Your task to perform on an android device: Open the calendar and show me this week's events? Image 0: 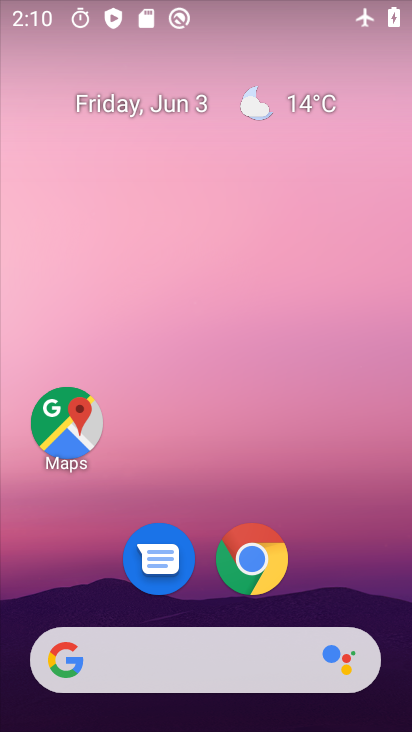
Step 0: drag from (236, 633) to (190, 19)
Your task to perform on an android device: Open the calendar and show me this week's events? Image 1: 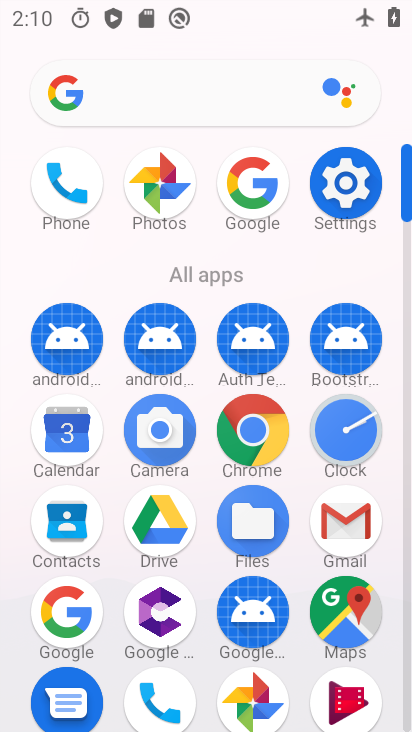
Step 1: click (57, 419)
Your task to perform on an android device: Open the calendar and show me this week's events? Image 2: 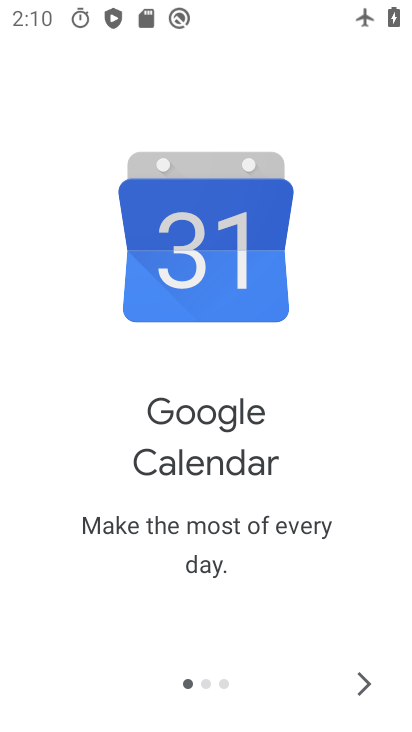
Step 2: click (351, 685)
Your task to perform on an android device: Open the calendar and show me this week's events? Image 3: 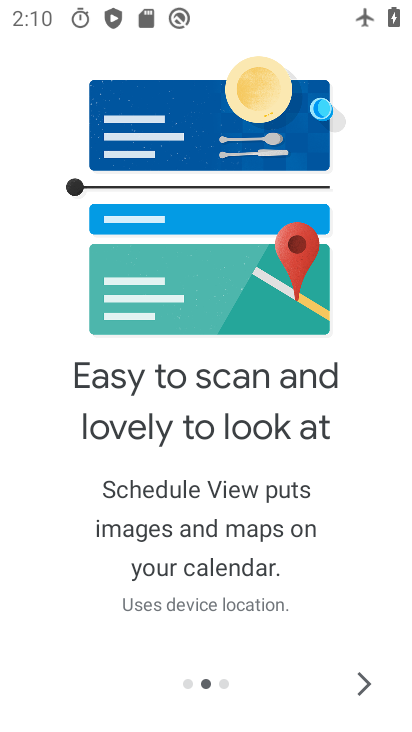
Step 3: click (365, 690)
Your task to perform on an android device: Open the calendar and show me this week's events? Image 4: 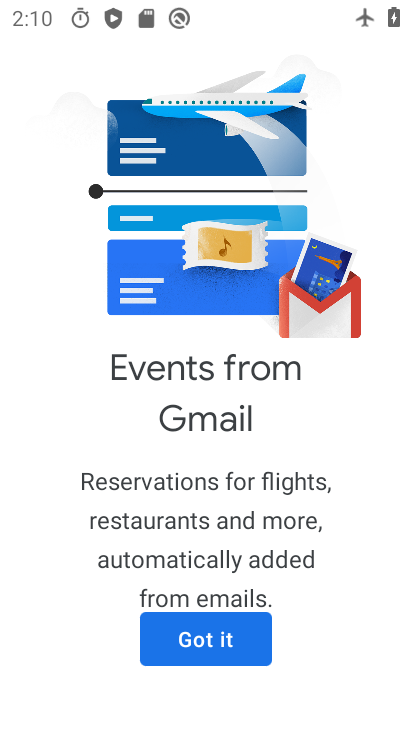
Step 4: click (236, 649)
Your task to perform on an android device: Open the calendar and show me this week's events? Image 5: 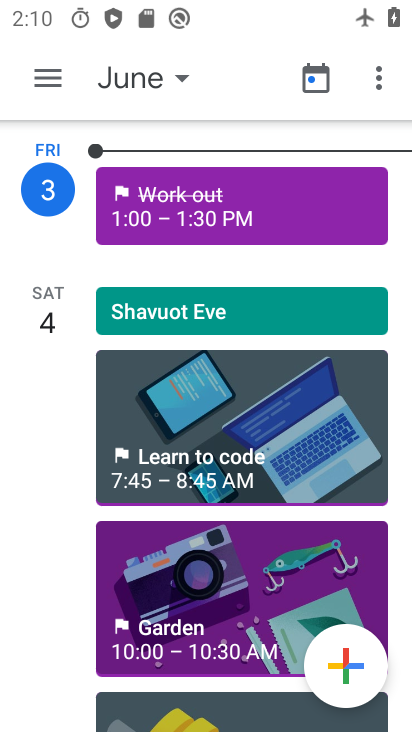
Step 5: click (34, 70)
Your task to perform on an android device: Open the calendar and show me this week's events? Image 6: 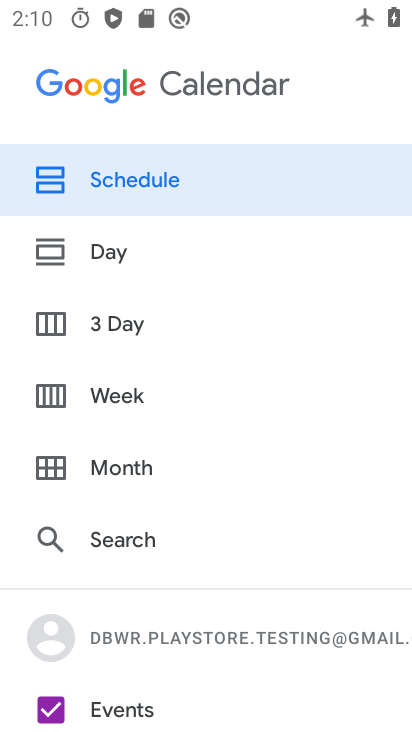
Step 6: click (125, 400)
Your task to perform on an android device: Open the calendar and show me this week's events? Image 7: 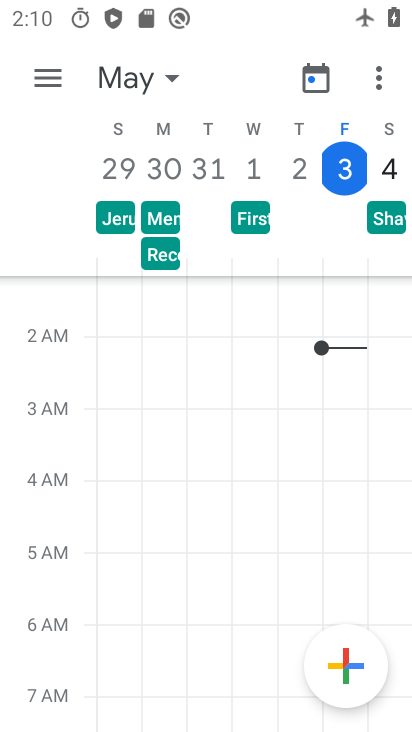
Step 7: task complete